Your task to perform on an android device: check out phone information Image 0: 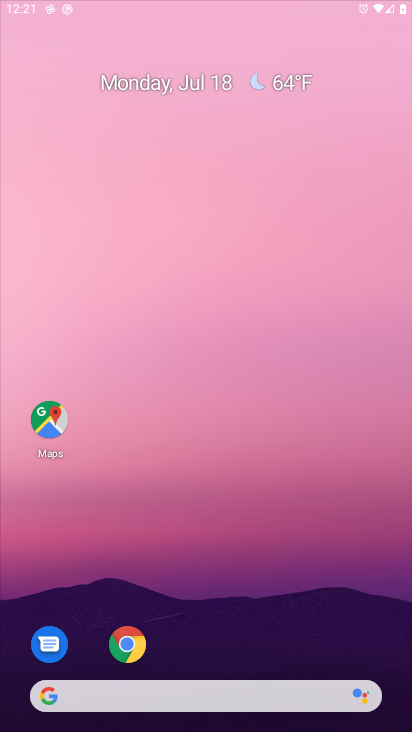
Step 0: press home button
Your task to perform on an android device: check out phone information Image 1: 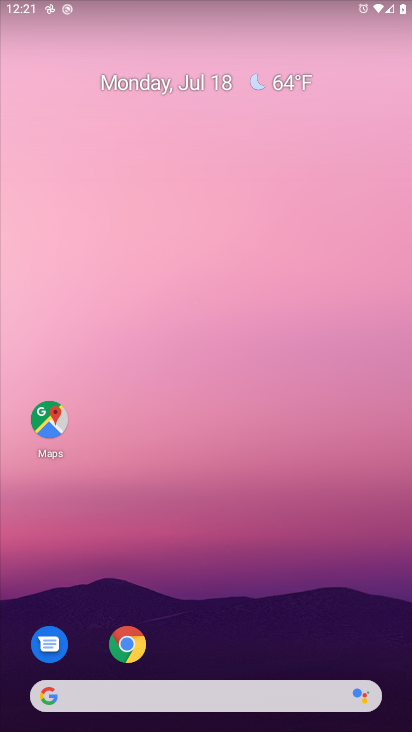
Step 1: press home button
Your task to perform on an android device: check out phone information Image 2: 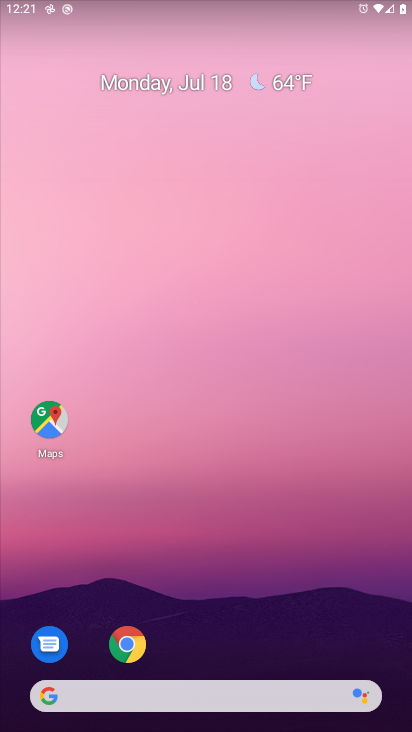
Step 2: drag from (310, 560) to (352, 86)
Your task to perform on an android device: check out phone information Image 3: 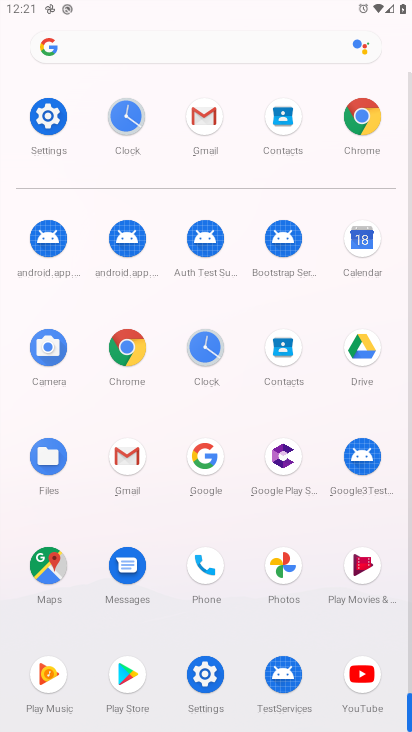
Step 3: click (41, 110)
Your task to perform on an android device: check out phone information Image 4: 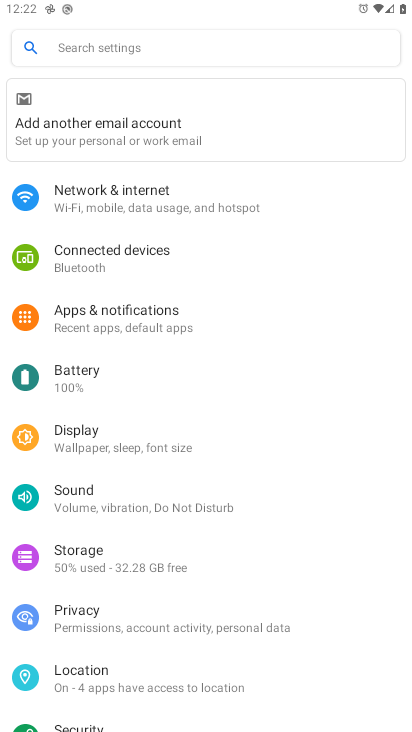
Step 4: drag from (263, 703) to (261, 244)
Your task to perform on an android device: check out phone information Image 5: 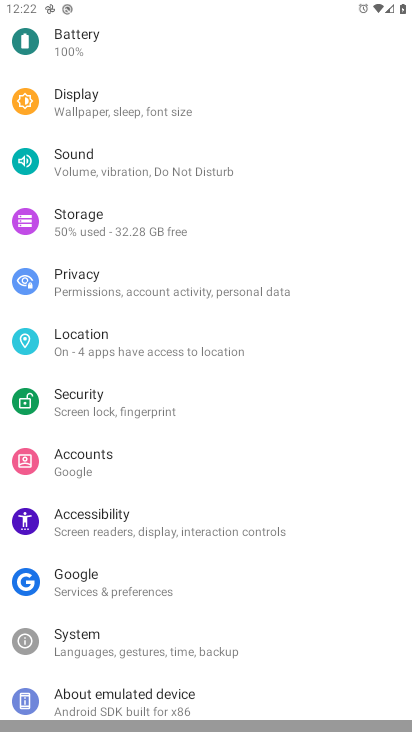
Step 5: drag from (152, 685) to (202, 322)
Your task to perform on an android device: check out phone information Image 6: 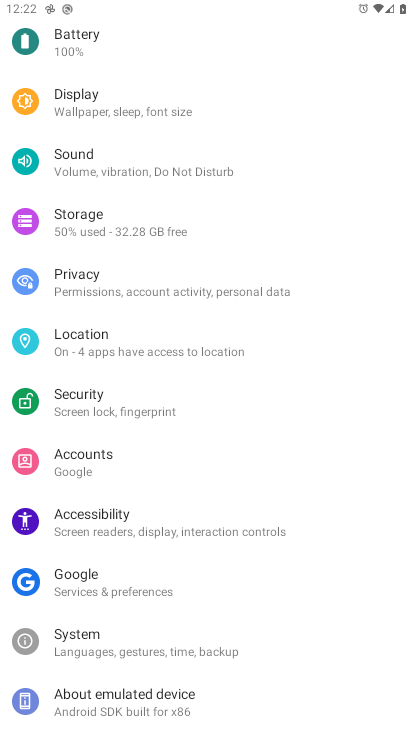
Step 6: click (134, 703)
Your task to perform on an android device: check out phone information Image 7: 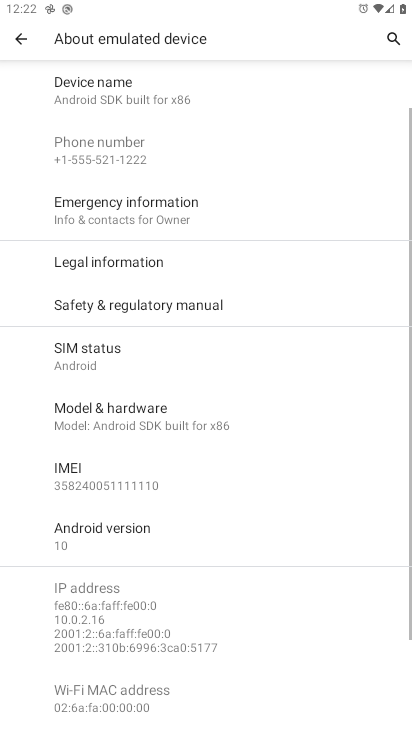
Step 7: click (199, 219)
Your task to perform on an android device: check out phone information Image 8: 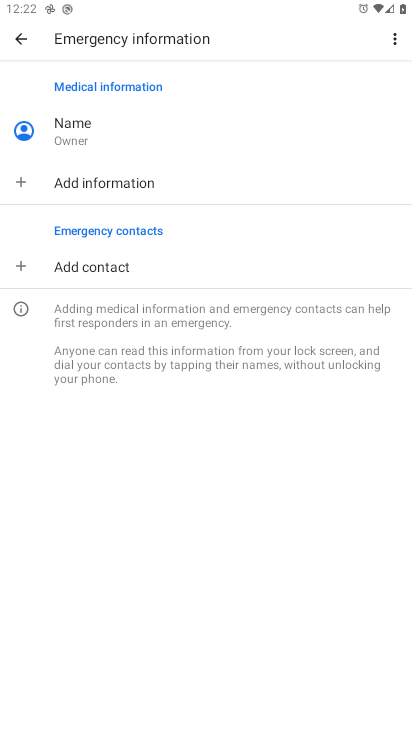
Step 8: task complete